Your task to perform on an android device: toggle airplane mode Image 0: 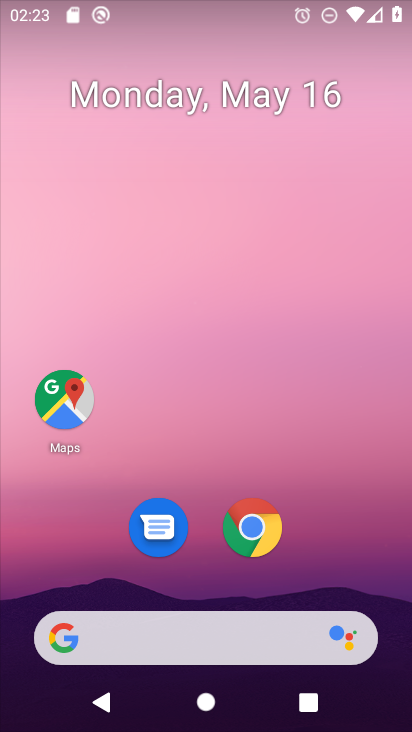
Step 0: drag from (334, 609) to (307, 83)
Your task to perform on an android device: toggle airplane mode Image 1: 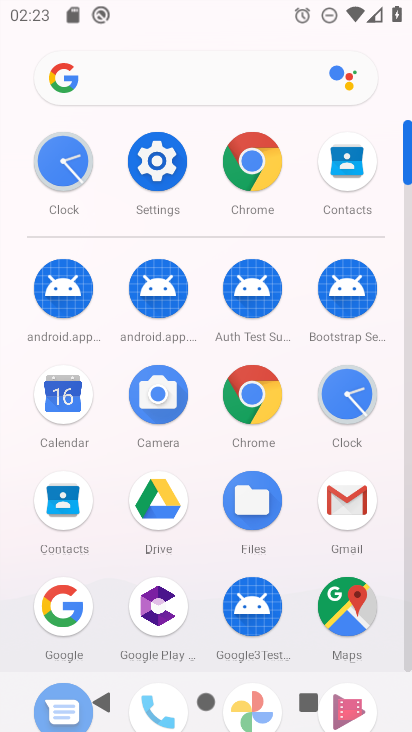
Step 1: click (155, 152)
Your task to perform on an android device: toggle airplane mode Image 2: 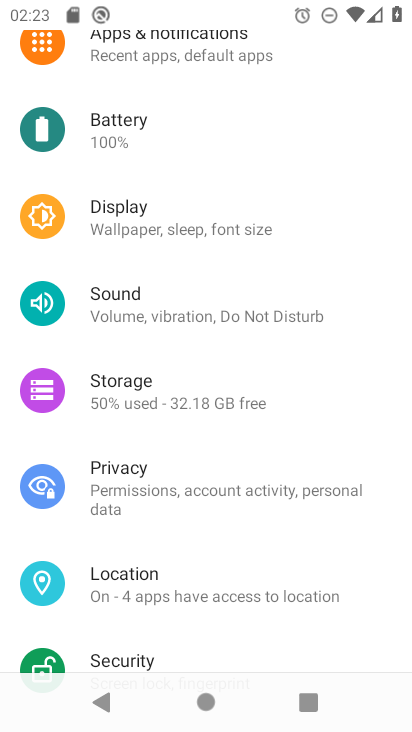
Step 2: drag from (244, 126) to (225, 641)
Your task to perform on an android device: toggle airplane mode Image 3: 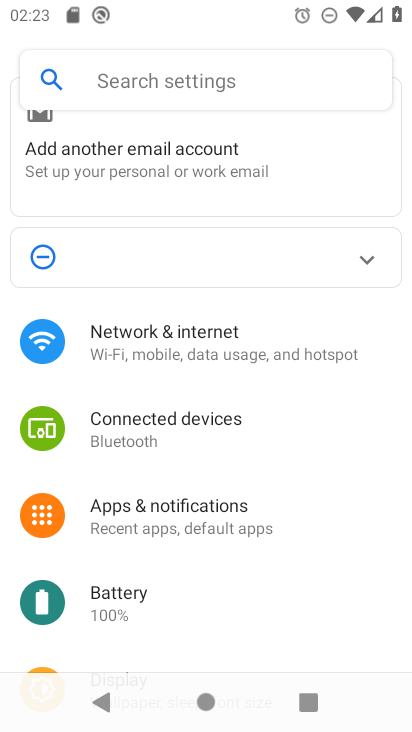
Step 3: click (218, 353)
Your task to perform on an android device: toggle airplane mode Image 4: 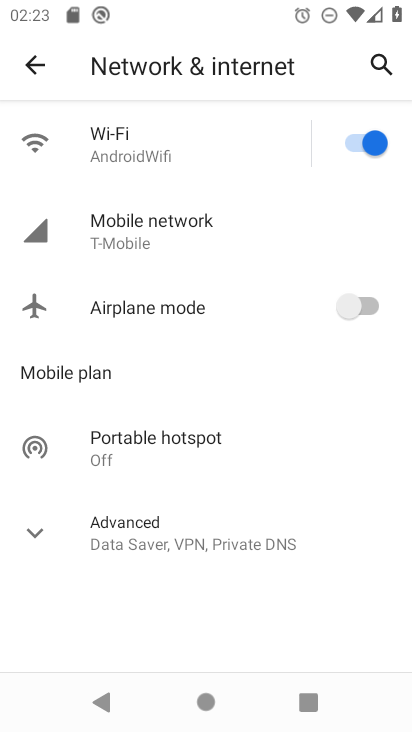
Step 4: click (331, 324)
Your task to perform on an android device: toggle airplane mode Image 5: 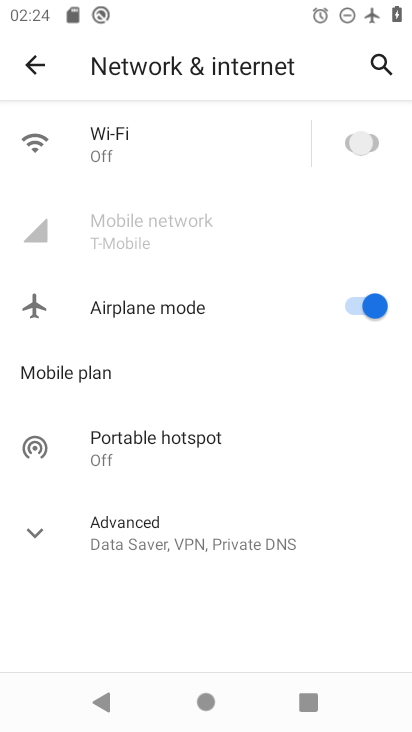
Step 5: task complete